Your task to perform on an android device: add a contact in the contacts app Image 0: 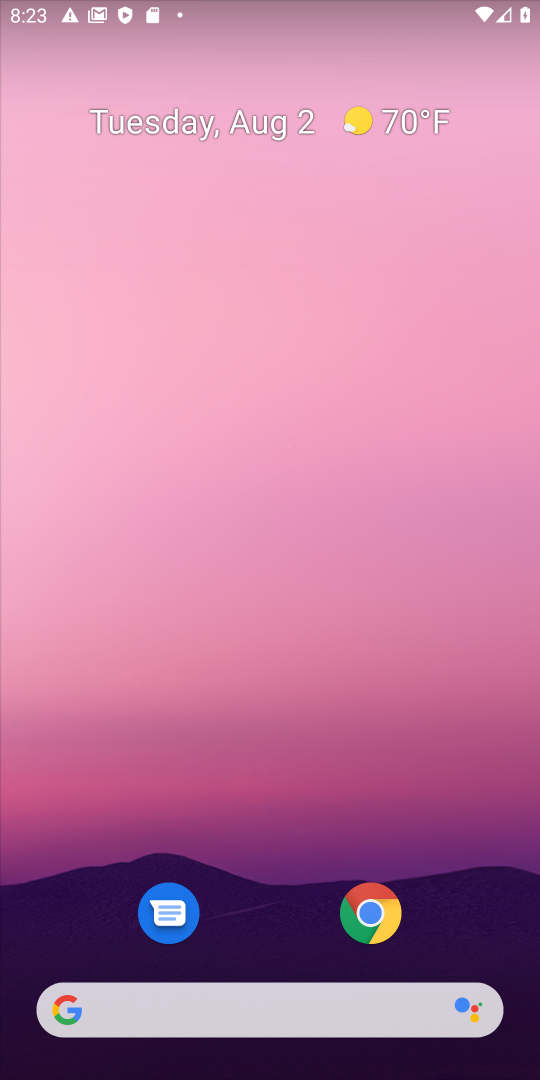
Step 0: drag from (228, 861) to (275, 271)
Your task to perform on an android device: add a contact in the contacts app Image 1: 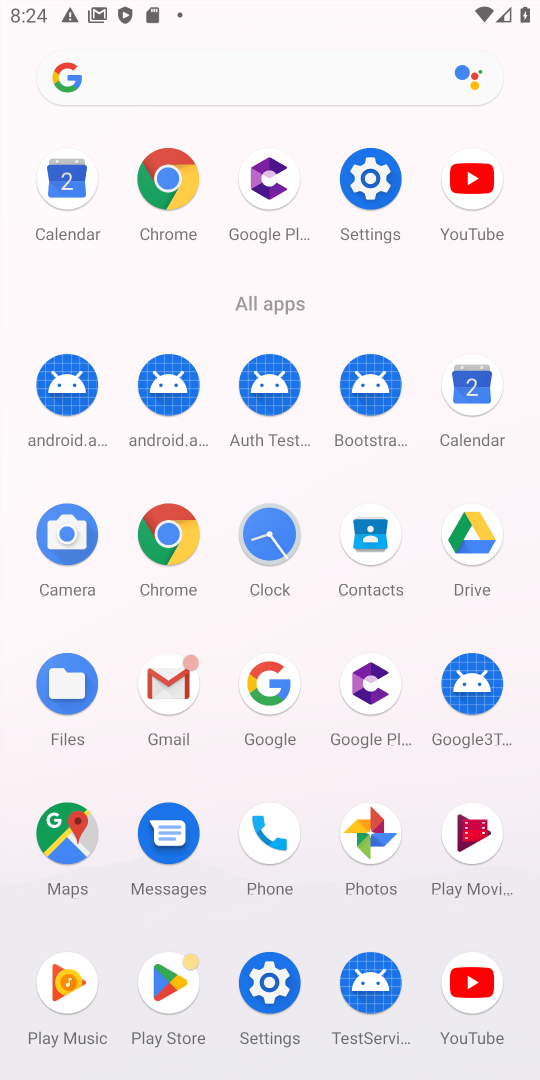
Step 1: click (373, 539)
Your task to perform on an android device: add a contact in the contacts app Image 2: 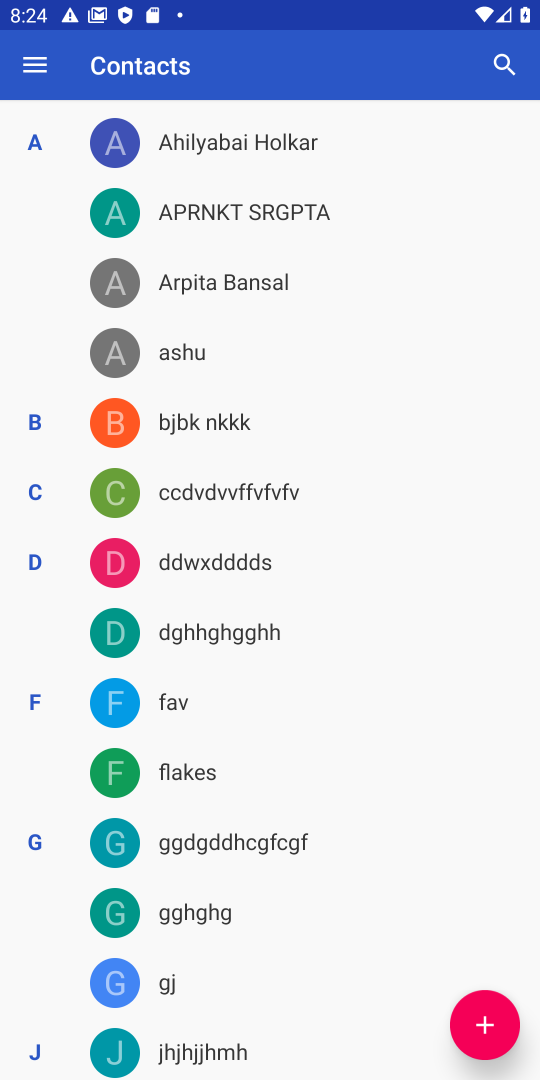
Step 2: click (471, 1014)
Your task to perform on an android device: add a contact in the contacts app Image 3: 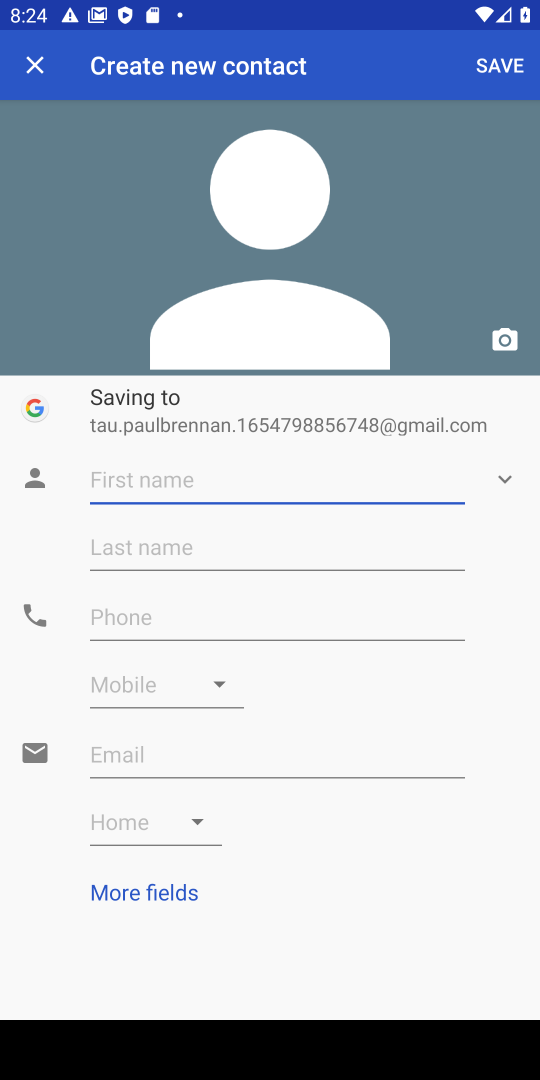
Step 3: type "gvds"
Your task to perform on an android device: add a contact in the contacts app Image 4: 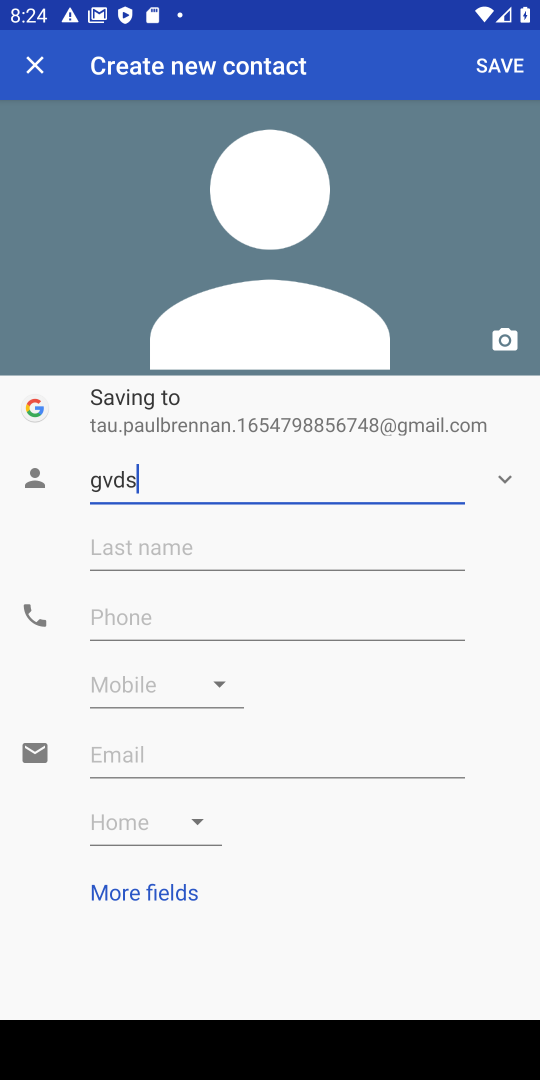
Step 4: press enter
Your task to perform on an android device: add a contact in the contacts app Image 5: 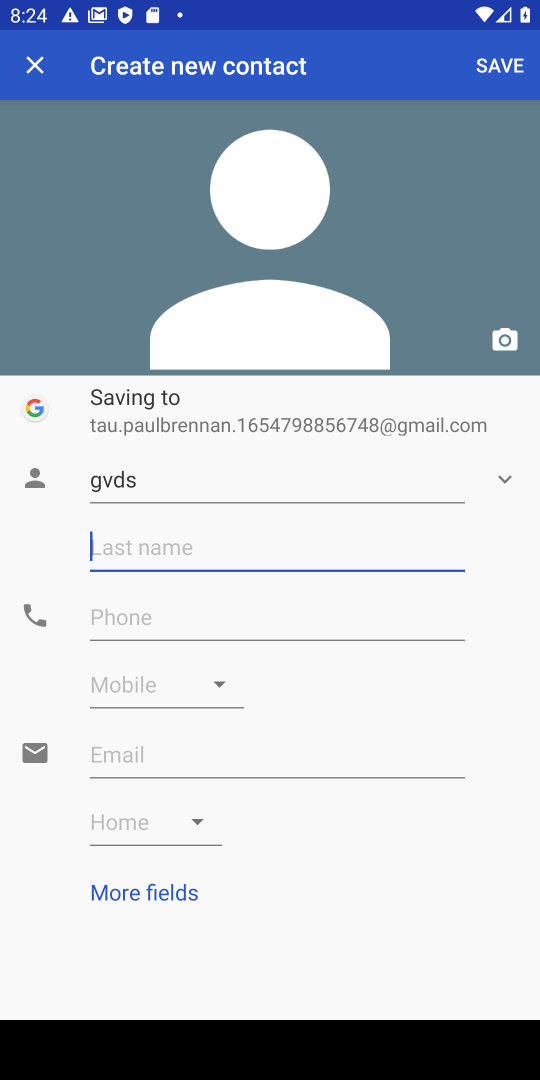
Step 5: click (218, 629)
Your task to perform on an android device: add a contact in the contacts app Image 6: 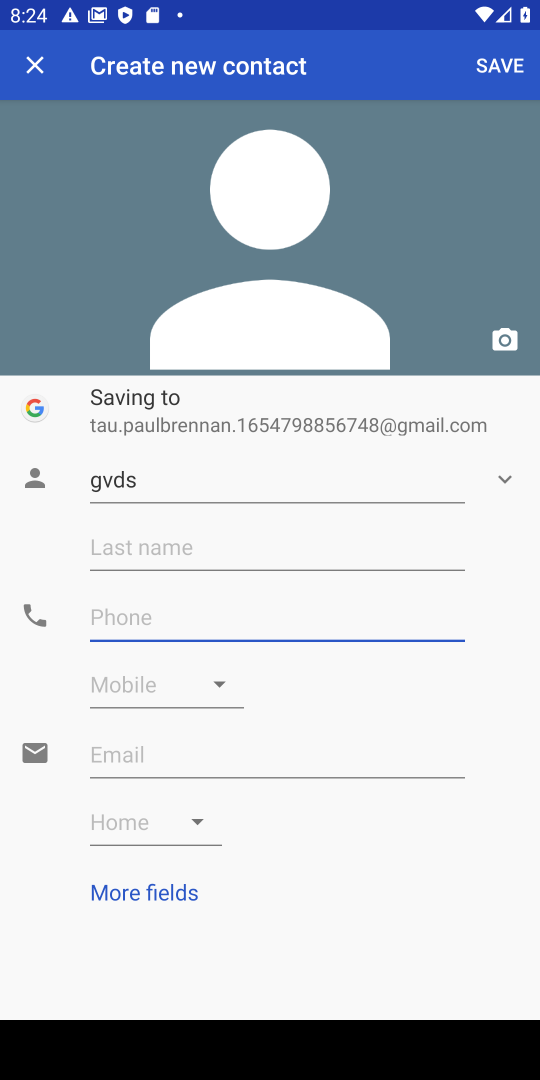
Step 6: type "3454363542"
Your task to perform on an android device: add a contact in the contacts app Image 7: 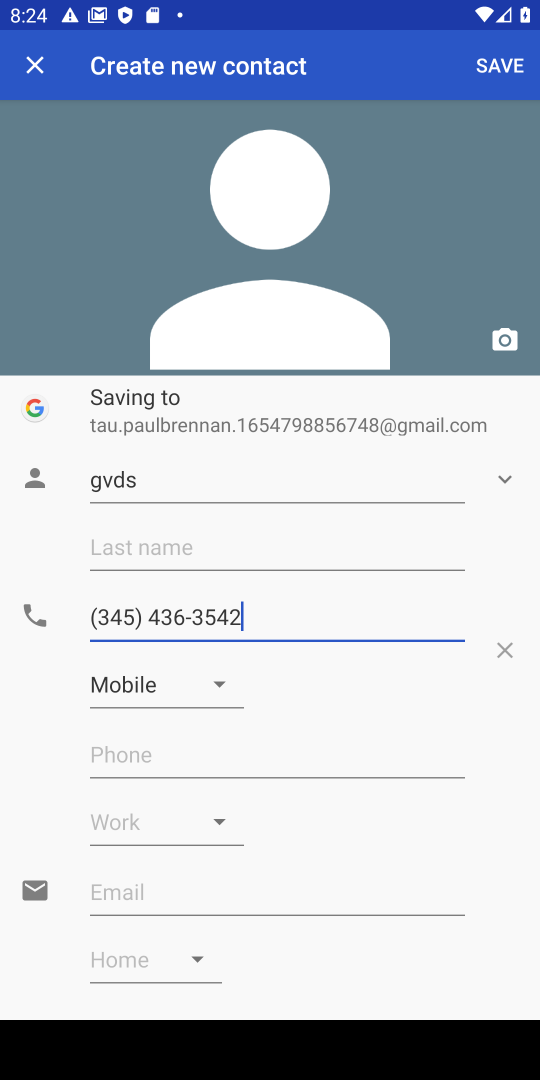
Step 7: press enter
Your task to perform on an android device: add a contact in the contacts app Image 8: 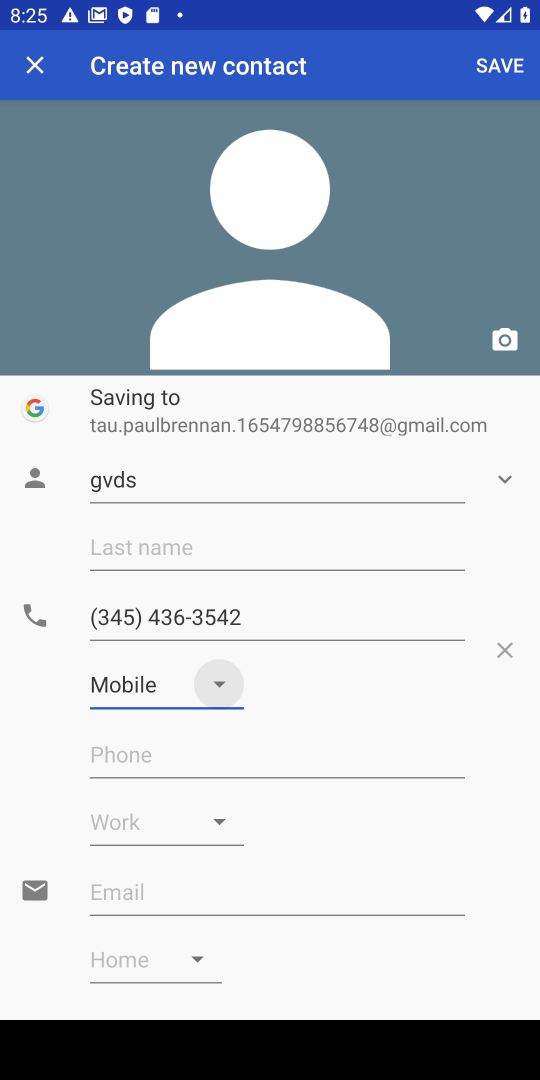
Step 8: click (491, 56)
Your task to perform on an android device: add a contact in the contacts app Image 9: 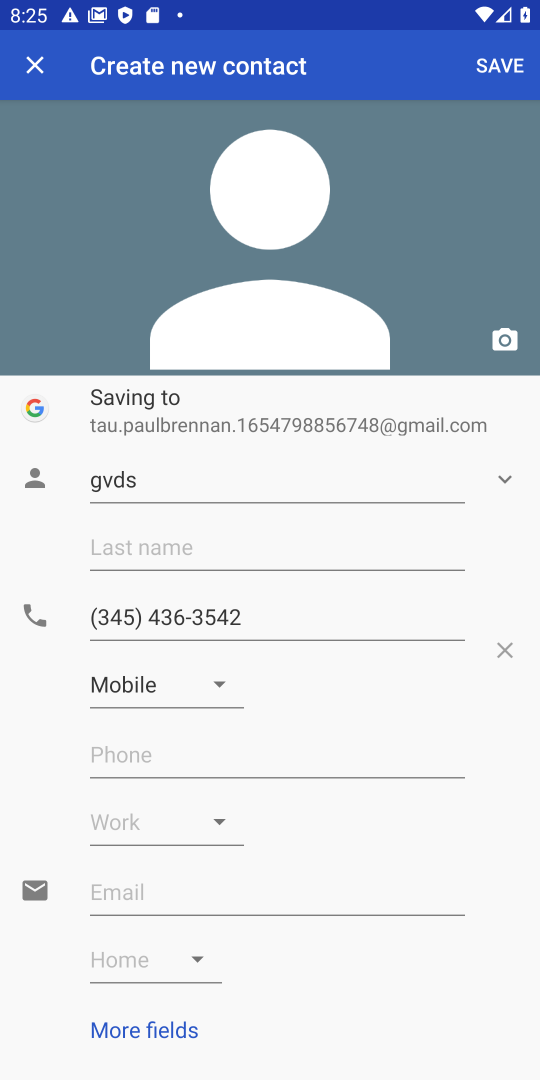
Step 9: click (491, 67)
Your task to perform on an android device: add a contact in the contacts app Image 10: 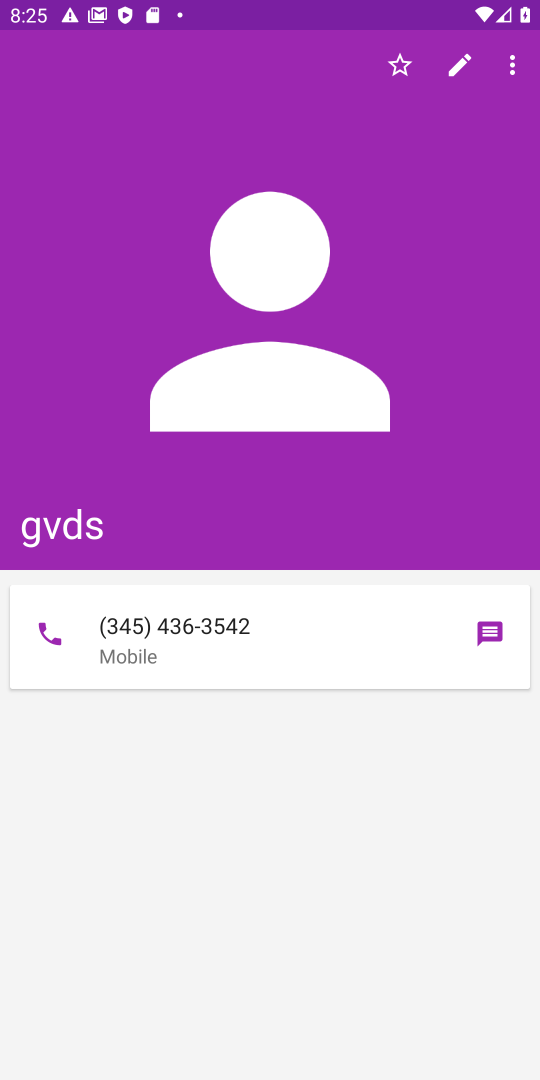
Step 10: task complete